Your task to perform on an android device: Go to location settings Image 0: 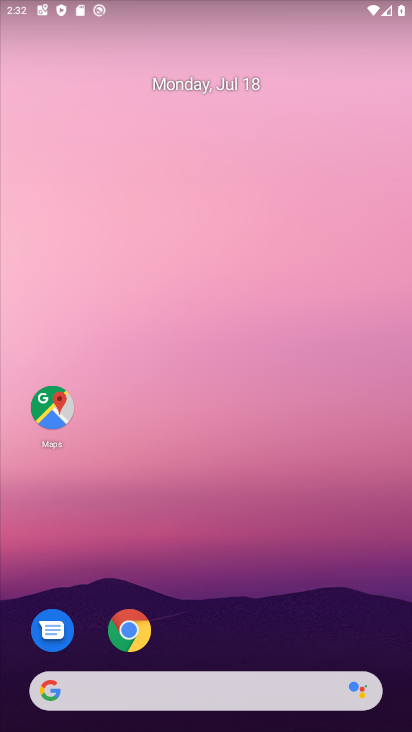
Step 0: drag from (384, 641) to (323, 154)
Your task to perform on an android device: Go to location settings Image 1: 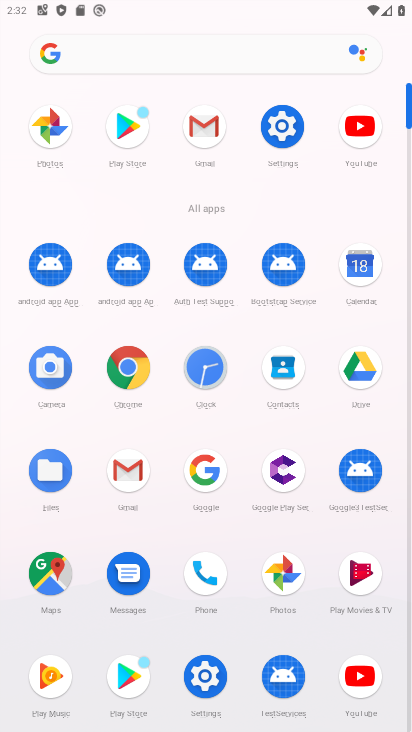
Step 1: click (203, 674)
Your task to perform on an android device: Go to location settings Image 2: 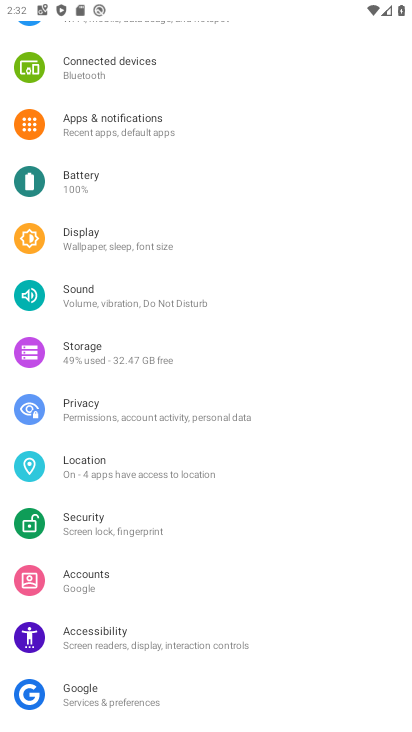
Step 2: click (90, 465)
Your task to perform on an android device: Go to location settings Image 3: 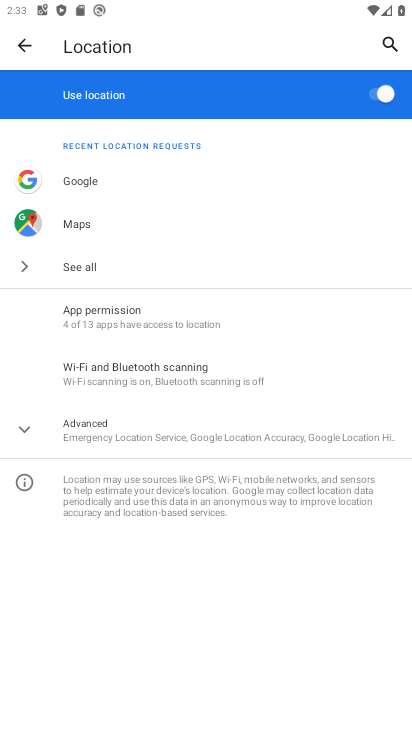
Step 3: task complete